Your task to perform on an android device: Go to wifi settings Image 0: 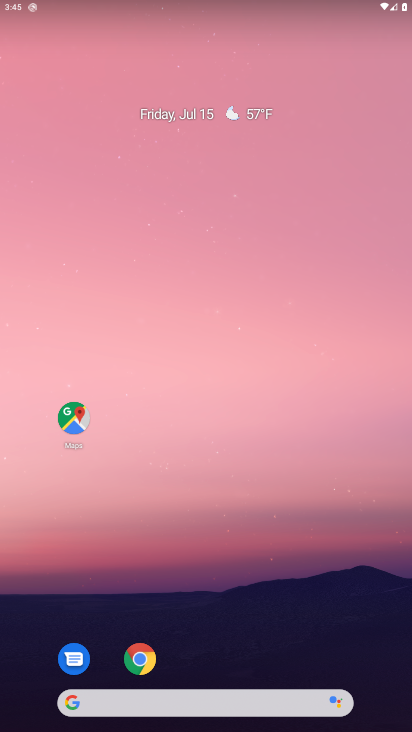
Step 0: drag from (25, 711) to (243, 118)
Your task to perform on an android device: Go to wifi settings Image 1: 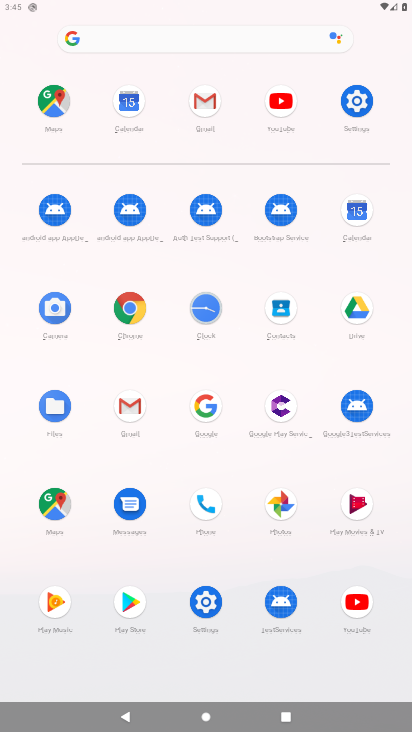
Step 1: click (204, 609)
Your task to perform on an android device: Go to wifi settings Image 2: 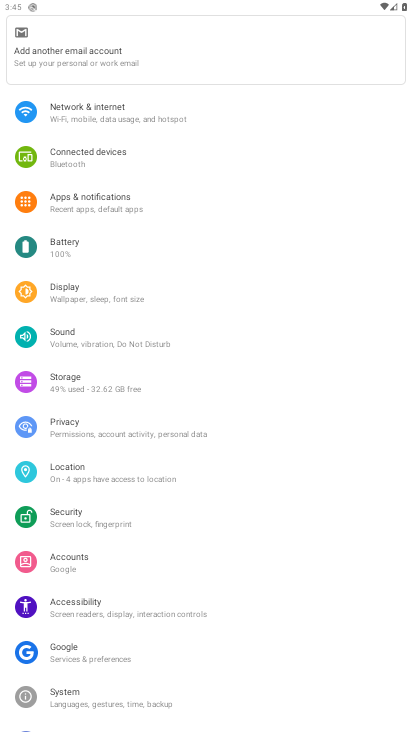
Step 2: click (121, 111)
Your task to perform on an android device: Go to wifi settings Image 3: 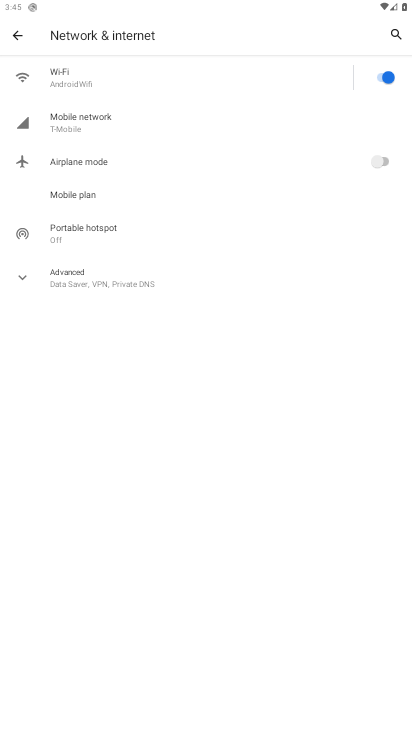
Step 3: click (74, 83)
Your task to perform on an android device: Go to wifi settings Image 4: 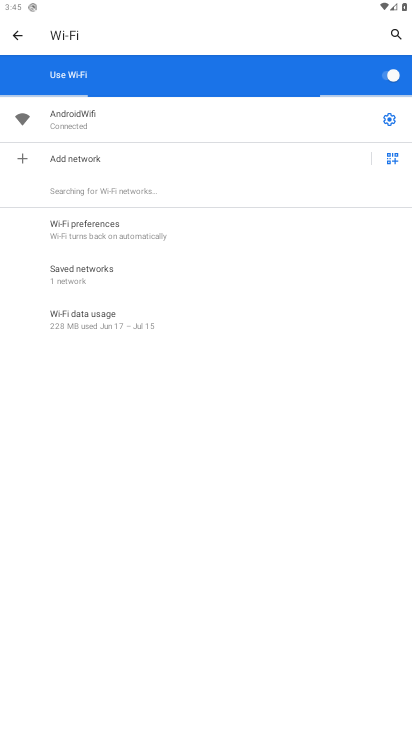
Step 4: task complete